Your task to perform on an android device: turn on javascript in the chrome app Image 0: 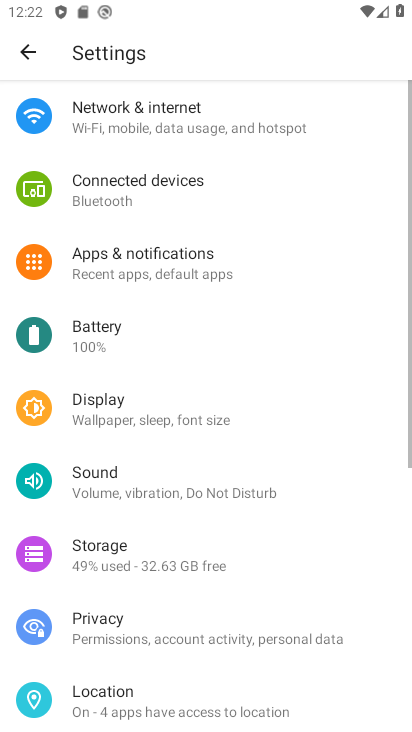
Step 0: press home button
Your task to perform on an android device: turn on javascript in the chrome app Image 1: 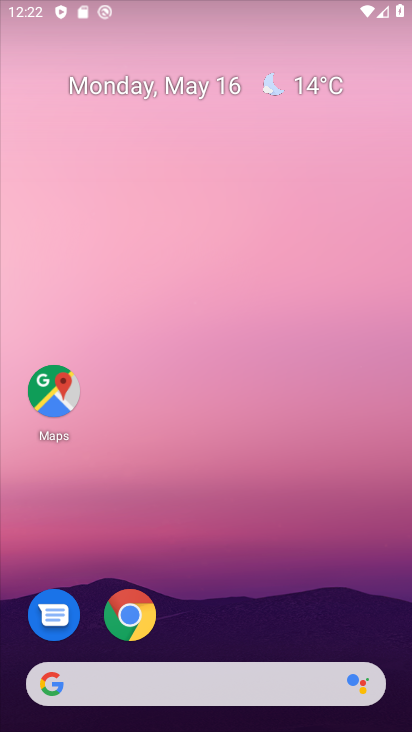
Step 1: drag from (359, 604) to (326, 194)
Your task to perform on an android device: turn on javascript in the chrome app Image 2: 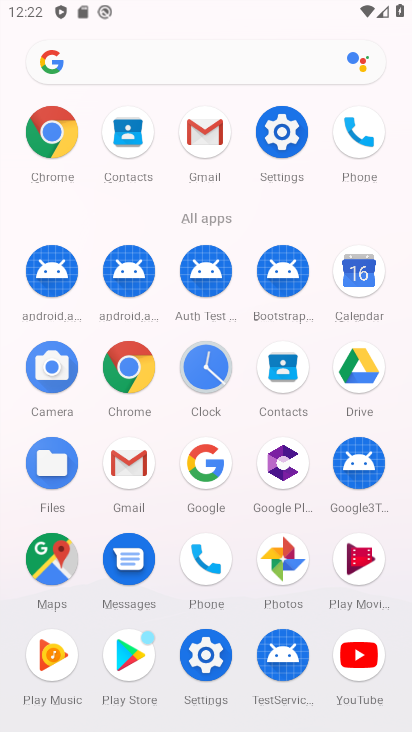
Step 2: click (132, 376)
Your task to perform on an android device: turn on javascript in the chrome app Image 3: 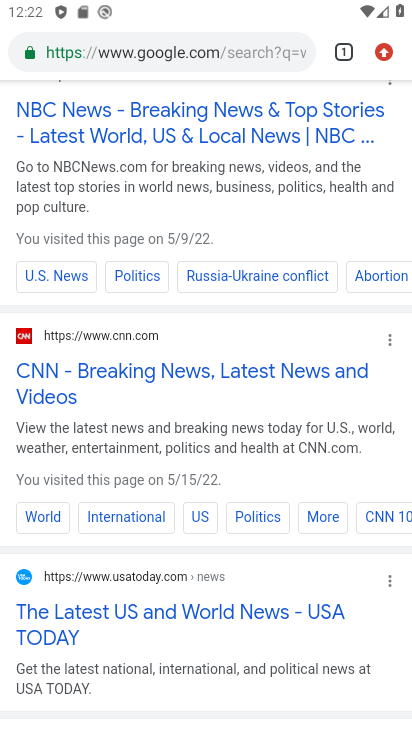
Step 3: drag from (285, 333) to (310, 696)
Your task to perform on an android device: turn on javascript in the chrome app Image 4: 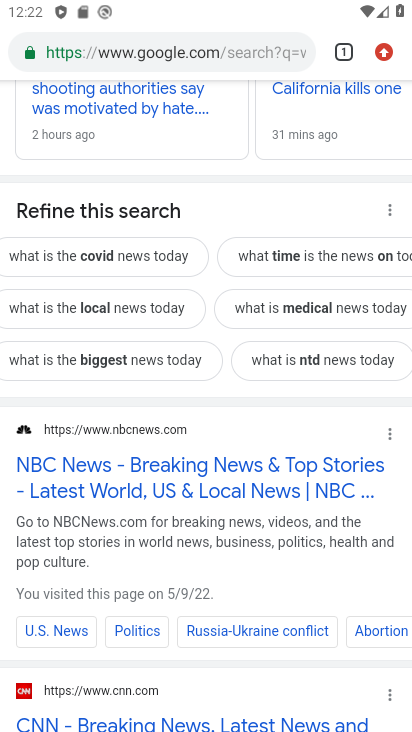
Step 4: drag from (258, 283) to (322, 619)
Your task to perform on an android device: turn on javascript in the chrome app Image 5: 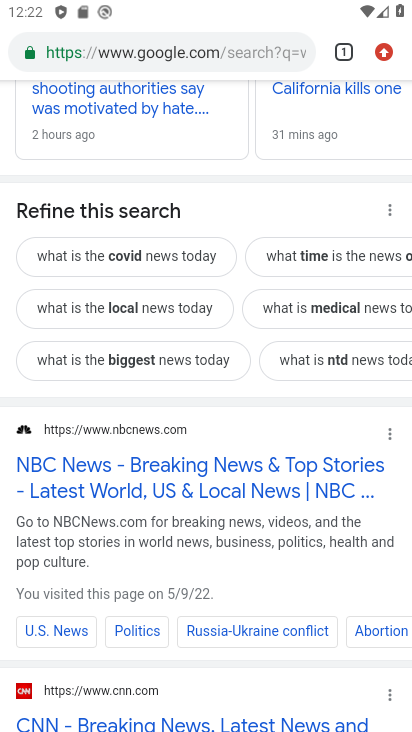
Step 5: drag from (243, 132) to (341, 552)
Your task to perform on an android device: turn on javascript in the chrome app Image 6: 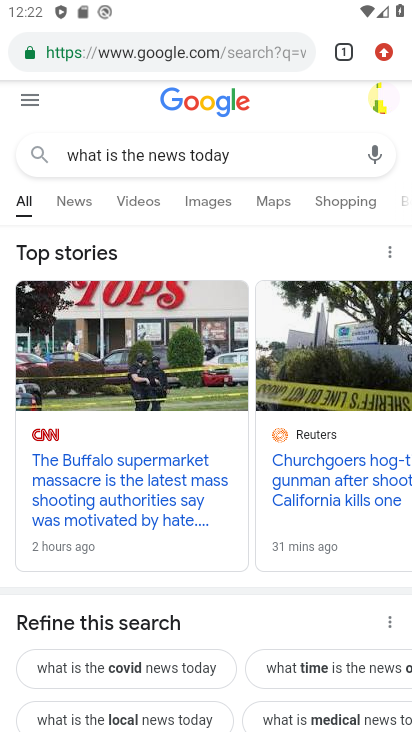
Step 6: drag from (389, 64) to (291, 611)
Your task to perform on an android device: turn on javascript in the chrome app Image 7: 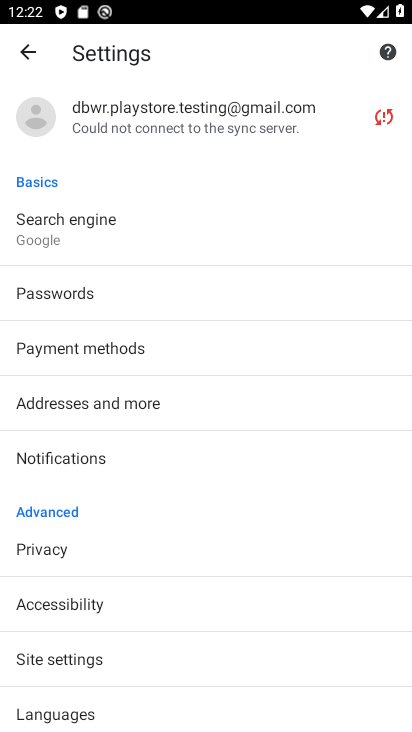
Step 7: drag from (233, 702) to (233, 369)
Your task to perform on an android device: turn on javascript in the chrome app Image 8: 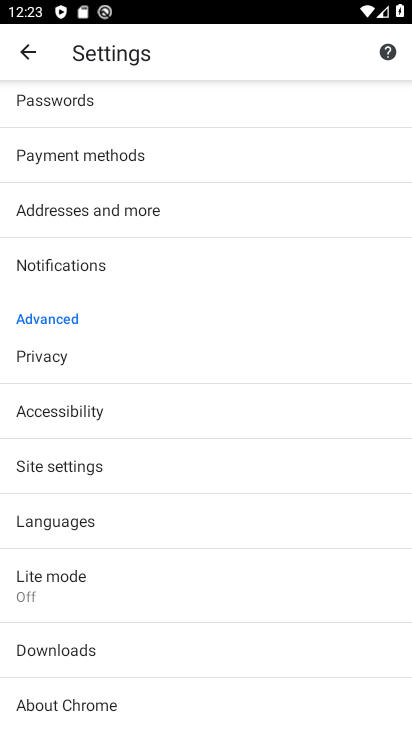
Step 8: click (125, 463)
Your task to perform on an android device: turn on javascript in the chrome app Image 9: 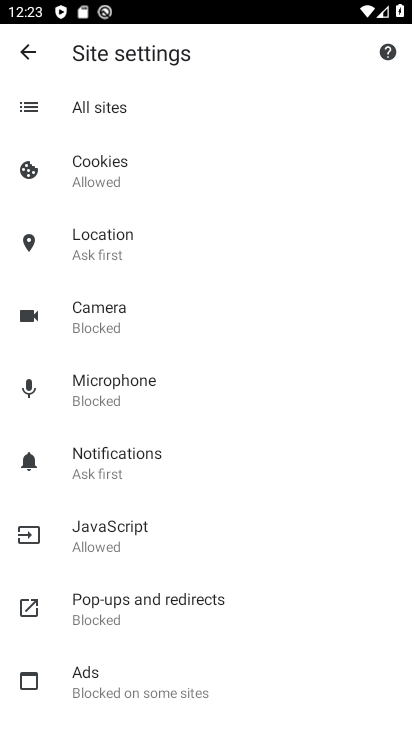
Step 9: drag from (254, 552) to (287, 298)
Your task to perform on an android device: turn on javascript in the chrome app Image 10: 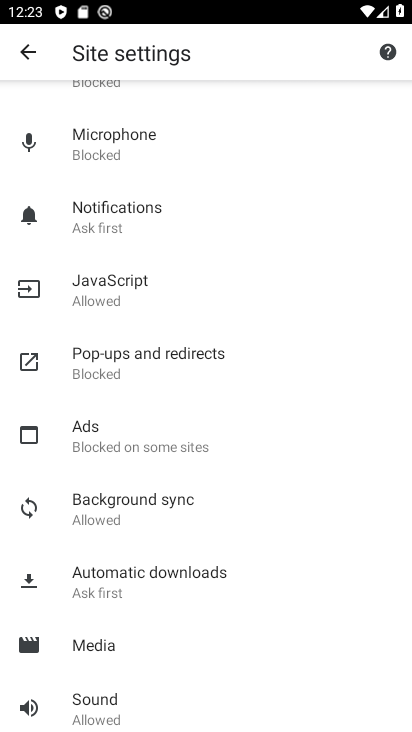
Step 10: drag from (207, 632) to (229, 313)
Your task to perform on an android device: turn on javascript in the chrome app Image 11: 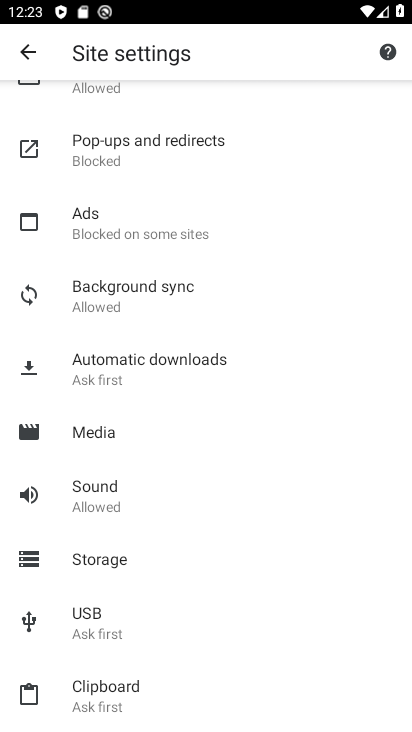
Step 11: drag from (214, 249) to (243, 554)
Your task to perform on an android device: turn on javascript in the chrome app Image 12: 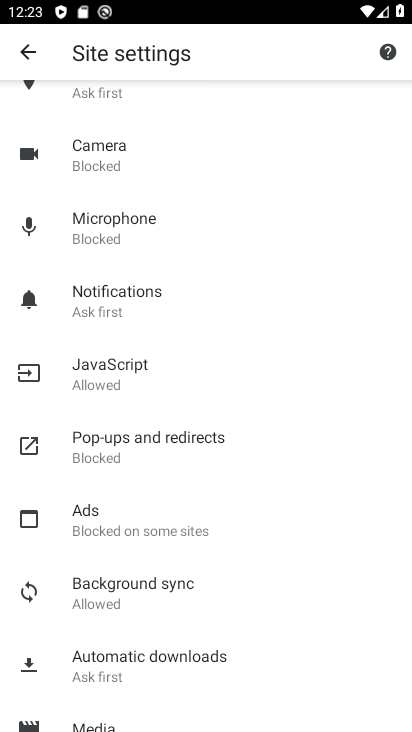
Step 12: drag from (238, 236) to (266, 483)
Your task to perform on an android device: turn on javascript in the chrome app Image 13: 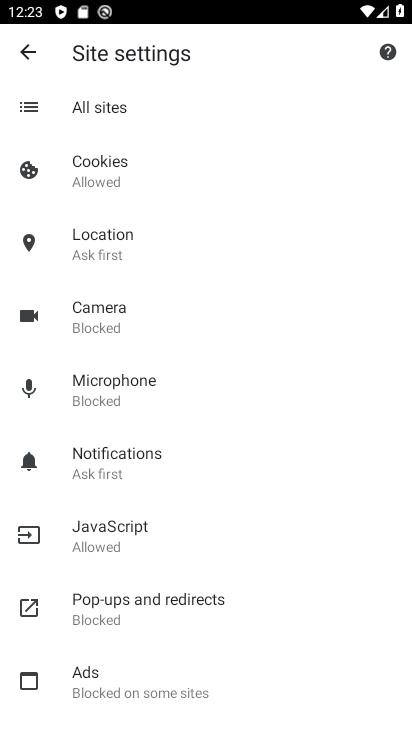
Step 13: click (206, 537)
Your task to perform on an android device: turn on javascript in the chrome app Image 14: 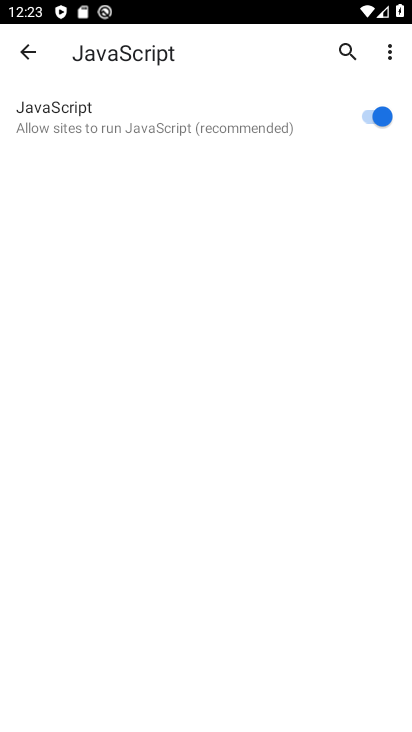
Step 14: task complete